Your task to perform on an android device: turn notification dots on Image 0: 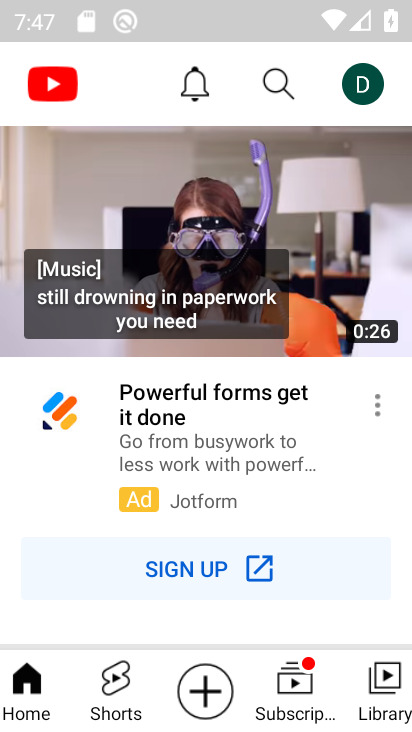
Step 0: press home button
Your task to perform on an android device: turn notification dots on Image 1: 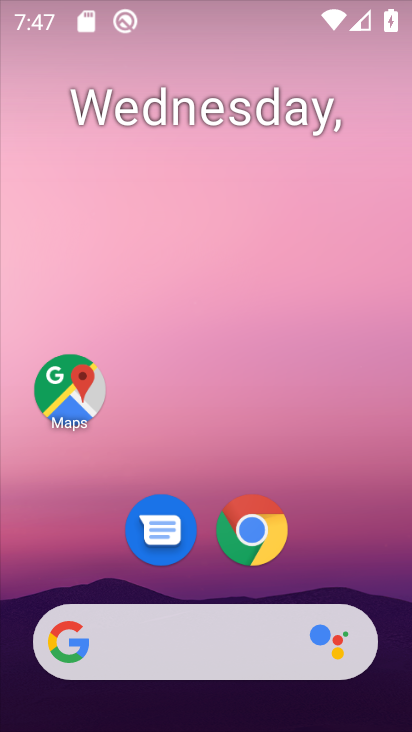
Step 1: drag from (387, 632) to (298, 60)
Your task to perform on an android device: turn notification dots on Image 2: 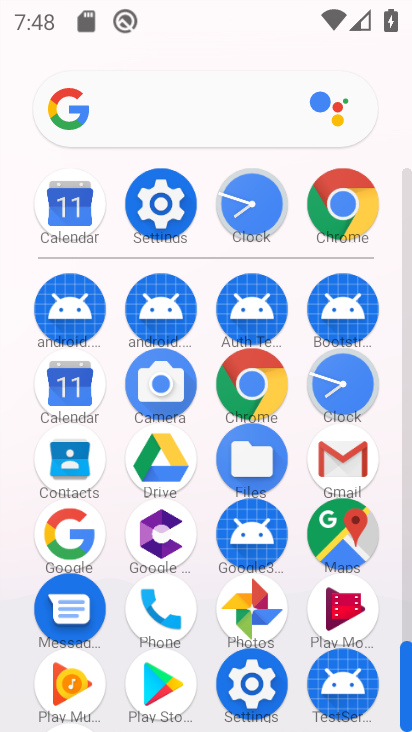
Step 2: click (265, 693)
Your task to perform on an android device: turn notification dots on Image 3: 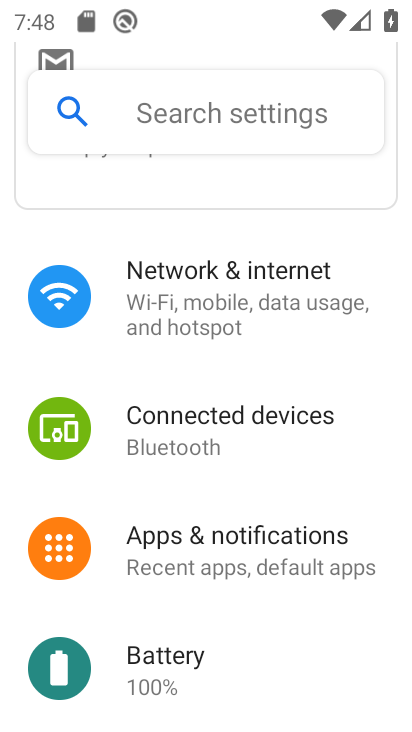
Step 3: click (267, 558)
Your task to perform on an android device: turn notification dots on Image 4: 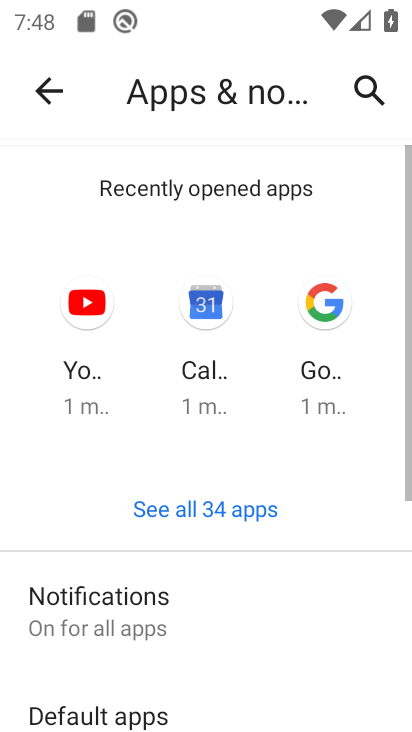
Step 4: click (177, 596)
Your task to perform on an android device: turn notification dots on Image 5: 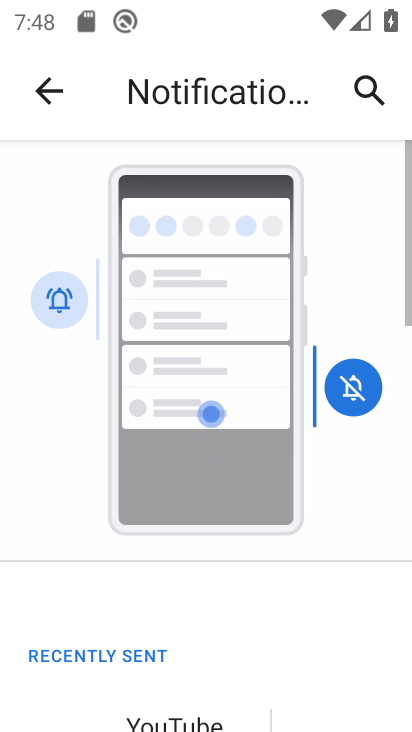
Step 5: drag from (190, 623) to (189, 102)
Your task to perform on an android device: turn notification dots on Image 6: 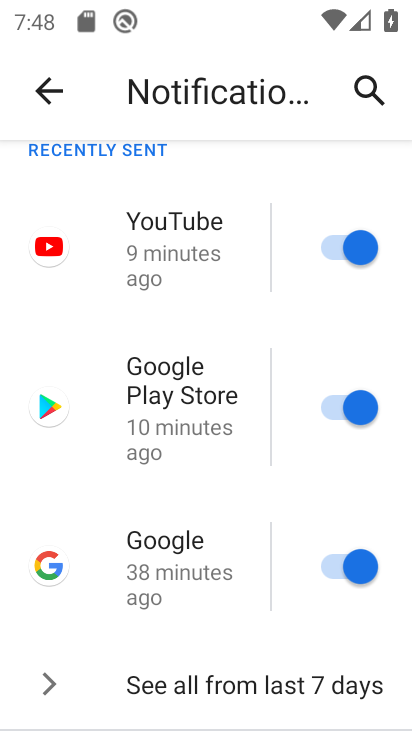
Step 6: drag from (144, 593) to (199, 152)
Your task to perform on an android device: turn notification dots on Image 7: 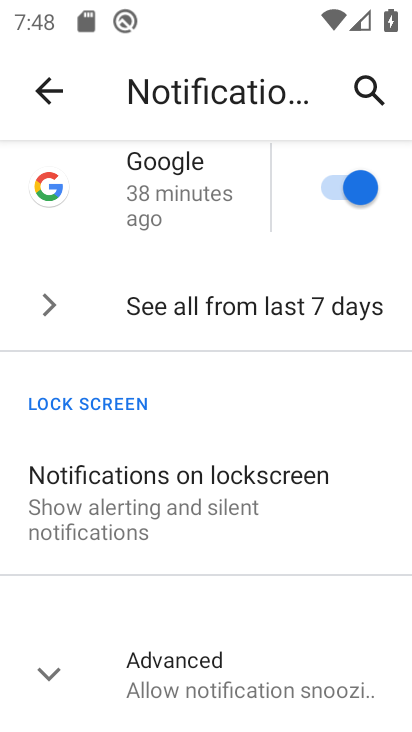
Step 7: click (40, 681)
Your task to perform on an android device: turn notification dots on Image 8: 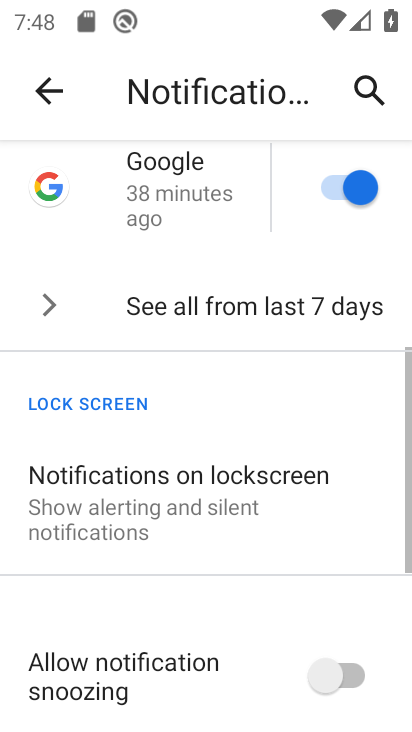
Step 8: drag from (116, 654) to (162, 175)
Your task to perform on an android device: turn notification dots on Image 9: 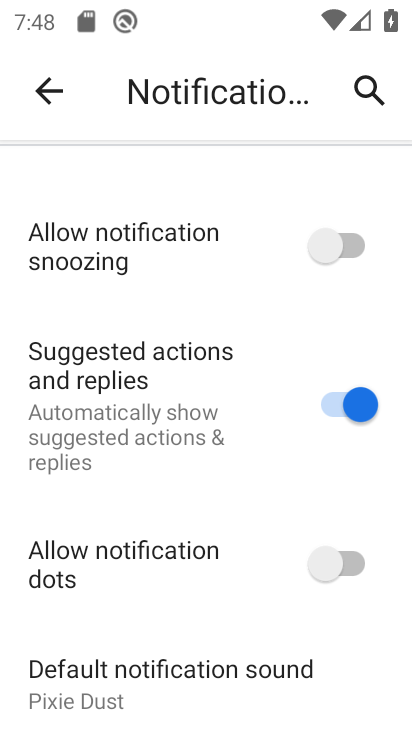
Step 9: click (250, 567)
Your task to perform on an android device: turn notification dots on Image 10: 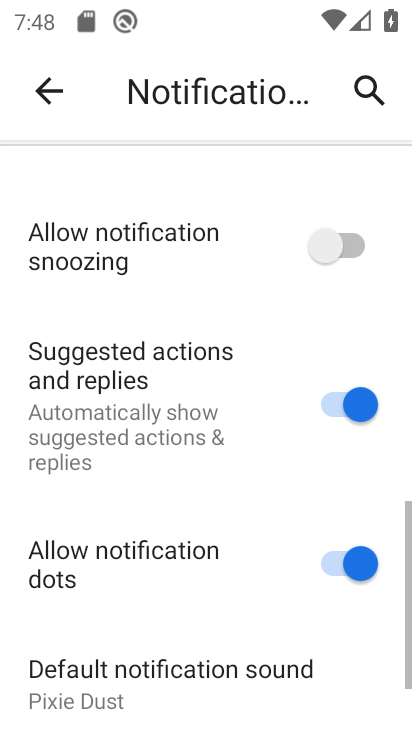
Step 10: task complete